Your task to perform on an android device: turn pop-ups off in chrome Image 0: 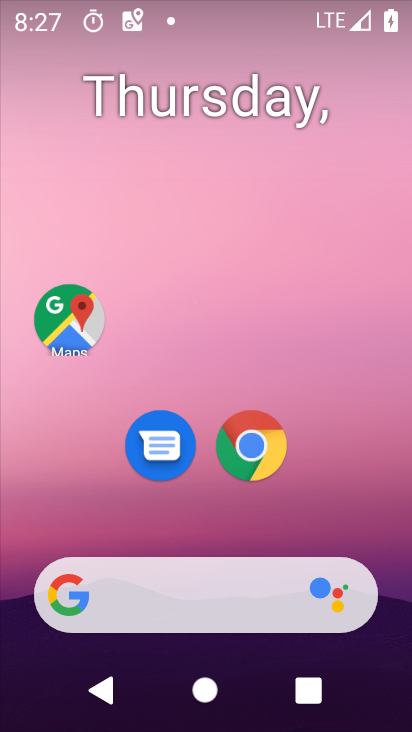
Step 0: drag from (213, 533) to (215, 91)
Your task to perform on an android device: turn pop-ups off in chrome Image 1: 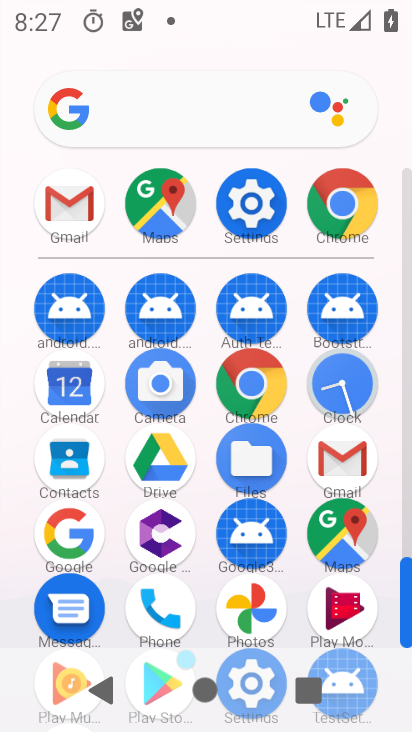
Step 1: click (253, 395)
Your task to perform on an android device: turn pop-ups off in chrome Image 2: 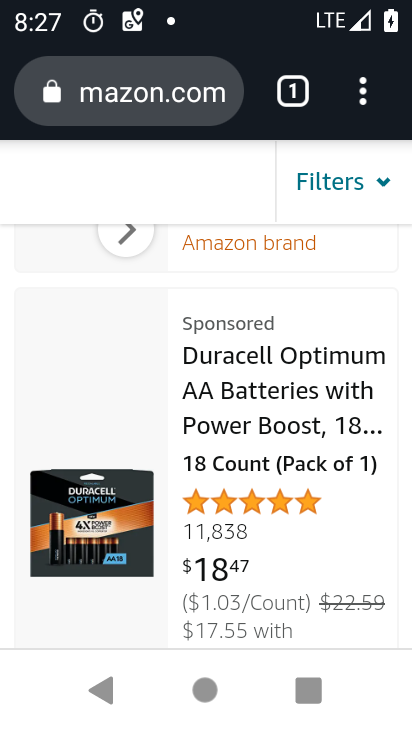
Step 2: click (362, 83)
Your task to perform on an android device: turn pop-ups off in chrome Image 3: 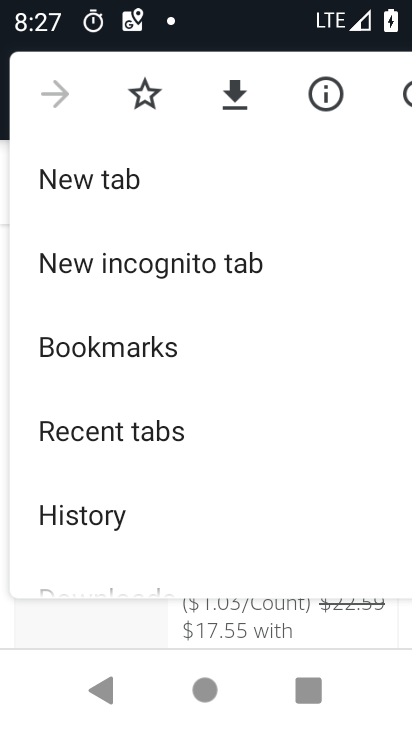
Step 3: drag from (184, 454) to (248, 196)
Your task to perform on an android device: turn pop-ups off in chrome Image 4: 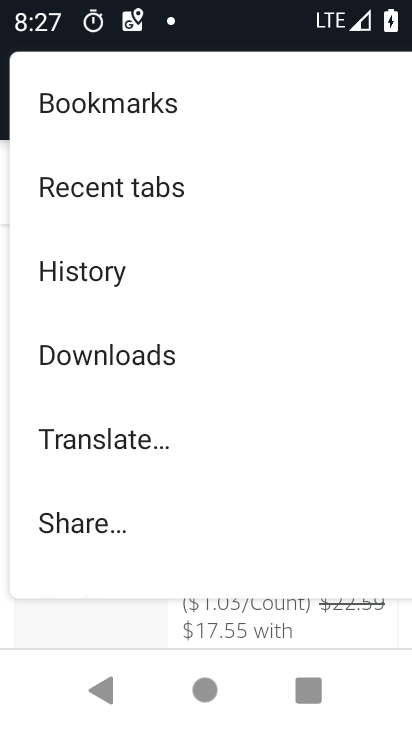
Step 4: drag from (124, 526) to (301, 103)
Your task to perform on an android device: turn pop-ups off in chrome Image 5: 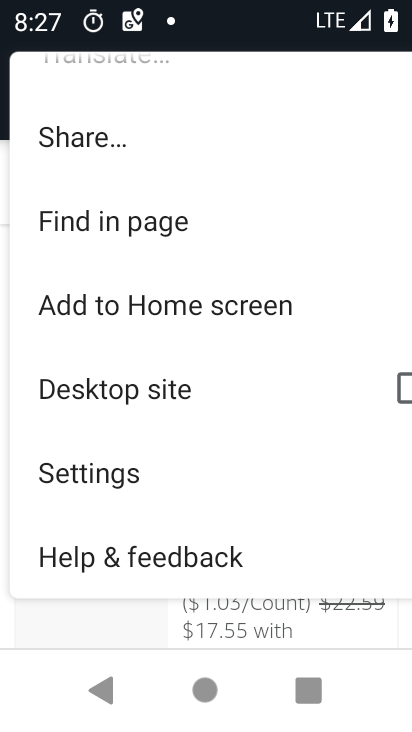
Step 5: click (137, 475)
Your task to perform on an android device: turn pop-ups off in chrome Image 6: 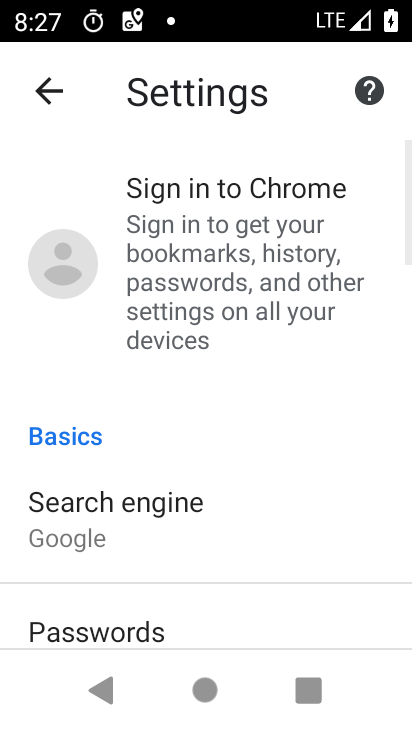
Step 6: drag from (153, 542) to (194, 188)
Your task to perform on an android device: turn pop-ups off in chrome Image 7: 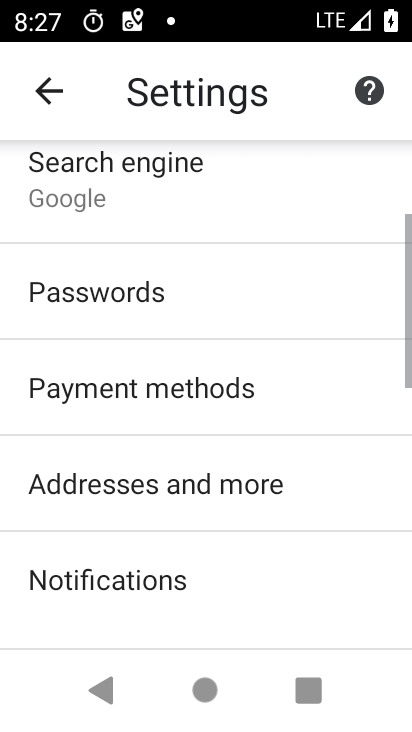
Step 7: drag from (142, 615) to (227, 211)
Your task to perform on an android device: turn pop-ups off in chrome Image 8: 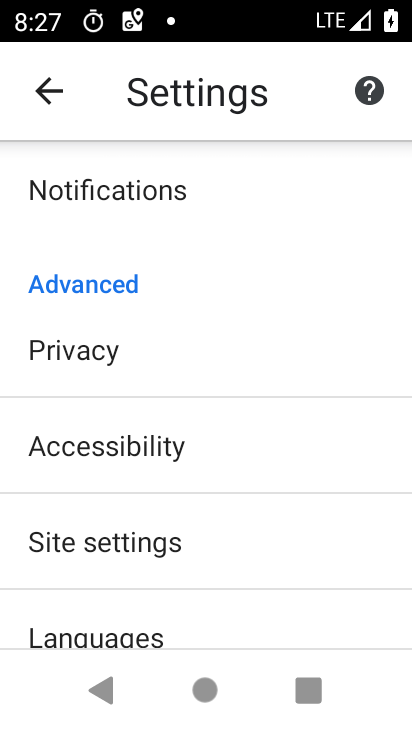
Step 8: click (152, 542)
Your task to perform on an android device: turn pop-ups off in chrome Image 9: 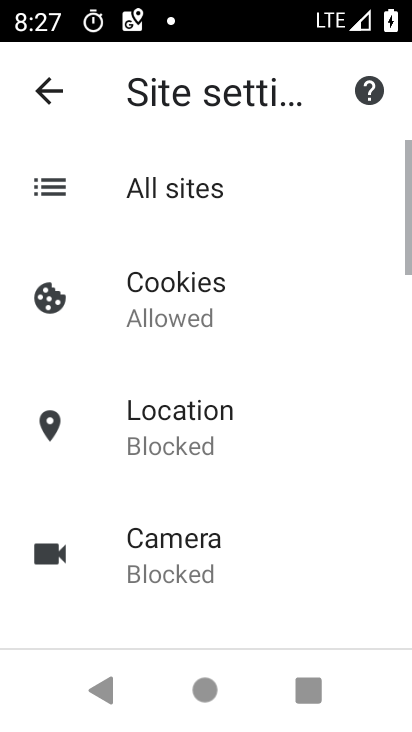
Step 9: drag from (215, 527) to (271, 24)
Your task to perform on an android device: turn pop-ups off in chrome Image 10: 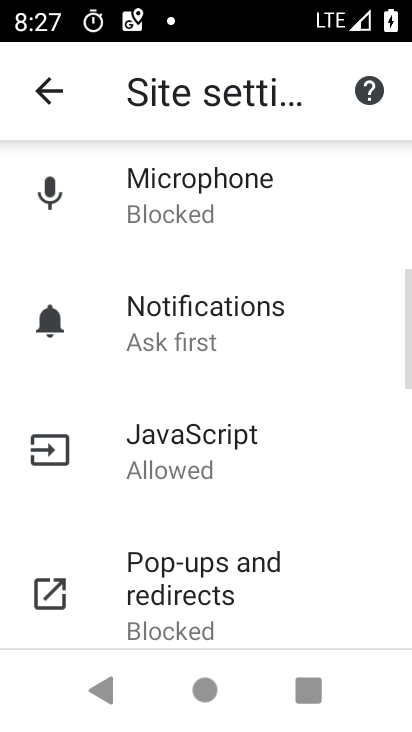
Step 10: click (211, 581)
Your task to perform on an android device: turn pop-ups off in chrome Image 11: 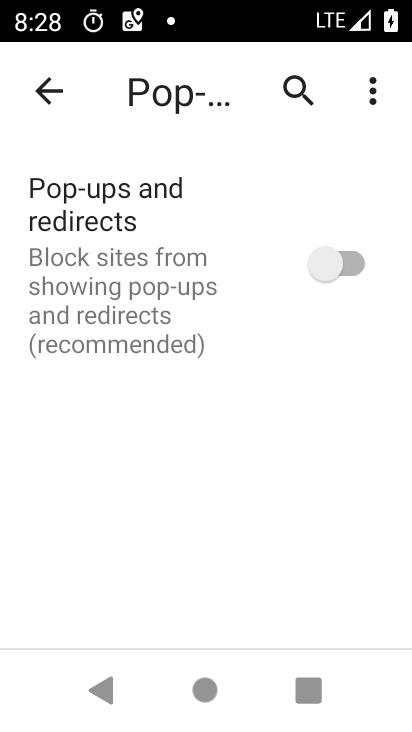
Step 11: click (295, 488)
Your task to perform on an android device: turn pop-ups off in chrome Image 12: 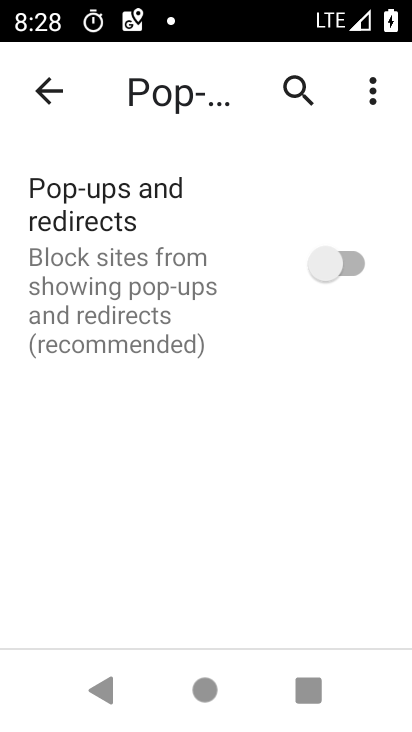
Step 12: drag from (305, 365) to (113, 454)
Your task to perform on an android device: turn pop-ups off in chrome Image 13: 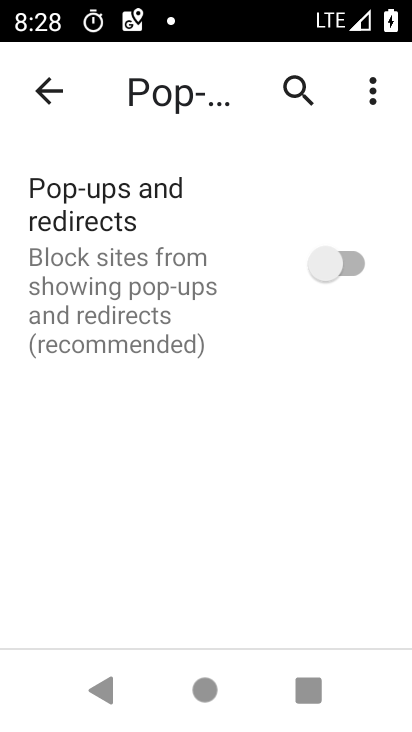
Step 13: click (144, 467)
Your task to perform on an android device: turn pop-ups off in chrome Image 14: 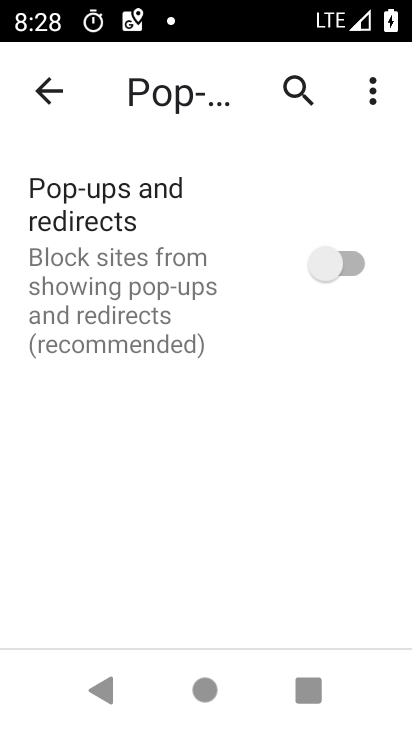
Step 14: task complete